Your task to perform on an android device: delete location history Image 0: 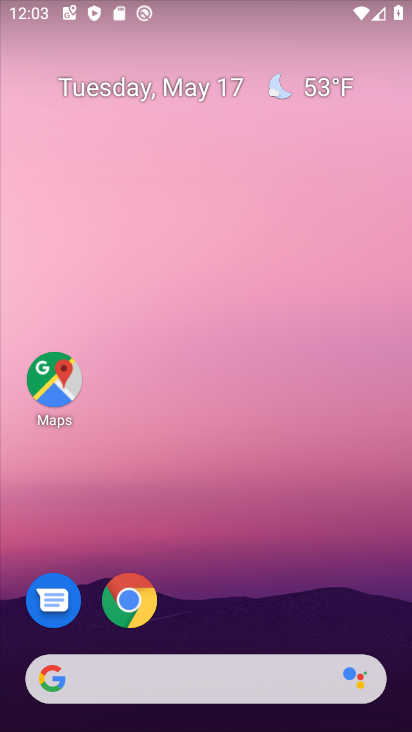
Step 0: click (50, 377)
Your task to perform on an android device: delete location history Image 1: 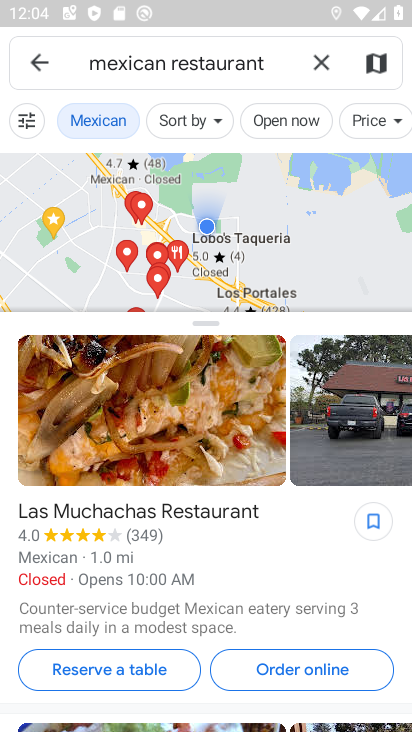
Step 1: click (45, 64)
Your task to perform on an android device: delete location history Image 2: 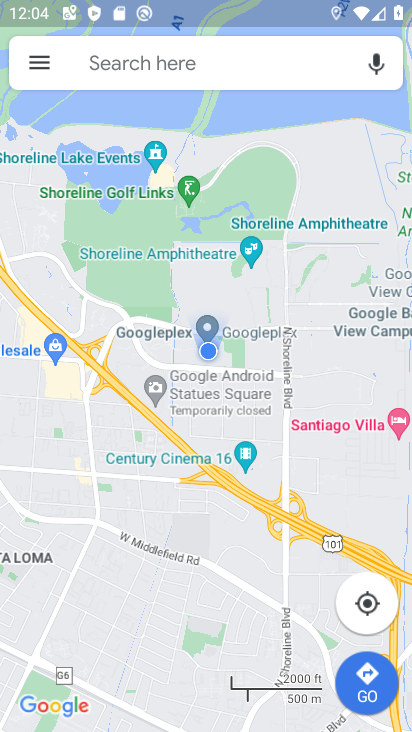
Step 2: click (45, 64)
Your task to perform on an android device: delete location history Image 3: 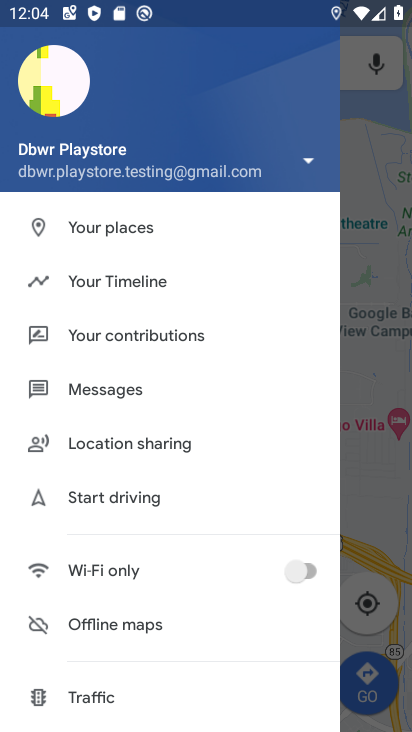
Step 3: click (143, 272)
Your task to perform on an android device: delete location history Image 4: 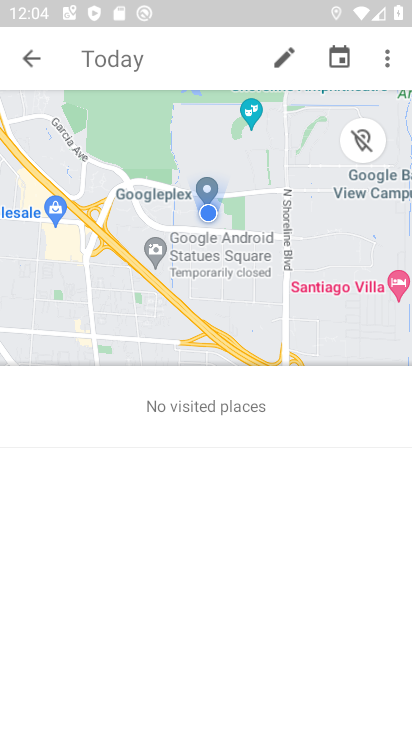
Step 4: click (387, 55)
Your task to perform on an android device: delete location history Image 5: 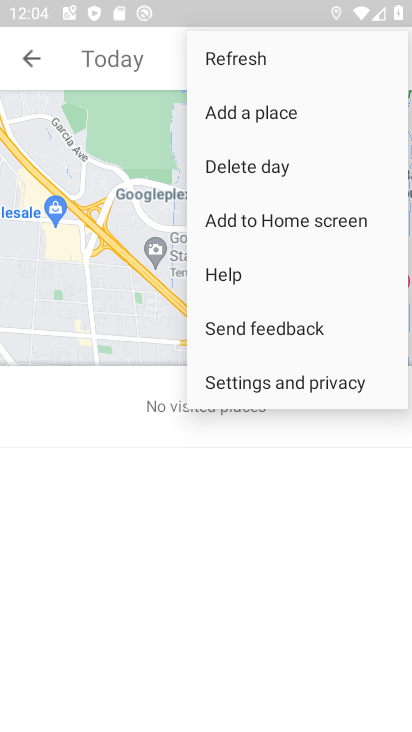
Step 5: click (310, 385)
Your task to perform on an android device: delete location history Image 6: 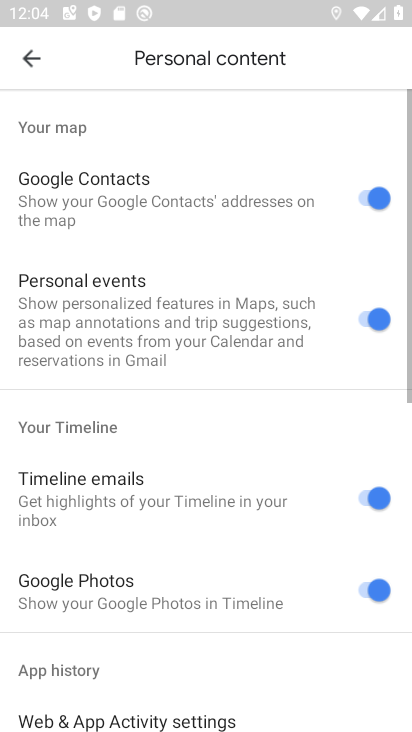
Step 6: drag from (246, 654) to (224, 130)
Your task to perform on an android device: delete location history Image 7: 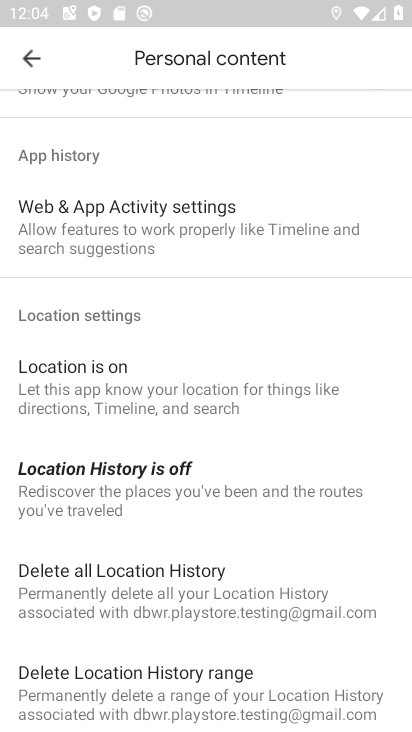
Step 7: click (260, 591)
Your task to perform on an android device: delete location history Image 8: 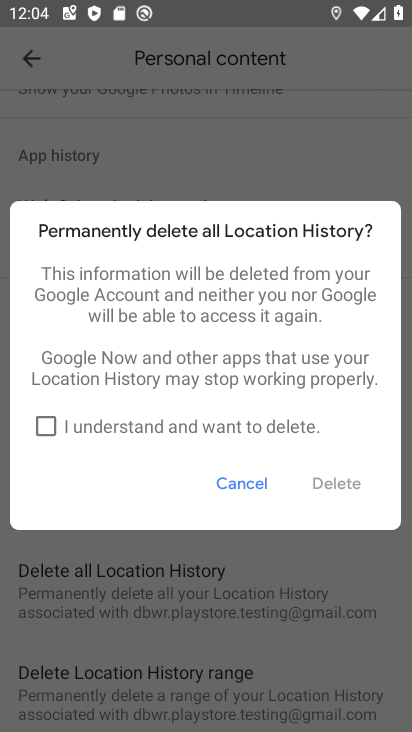
Step 8: click (210, 418)
Your task to perform on an android device: delete location history Image 9: 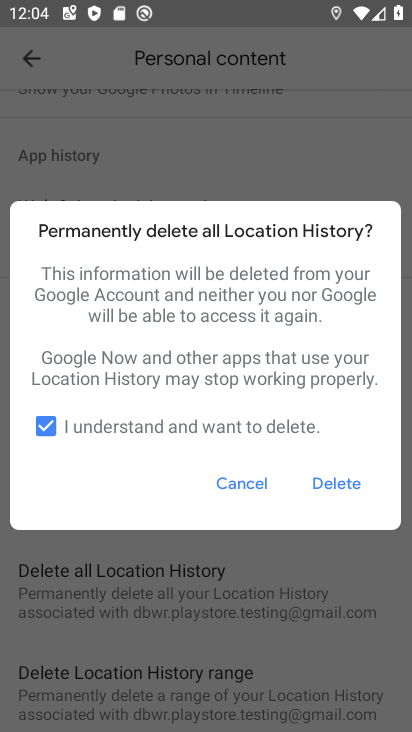
Step 9: click (335, 489)
Your task to perform on an android device: delete location history Image 10: 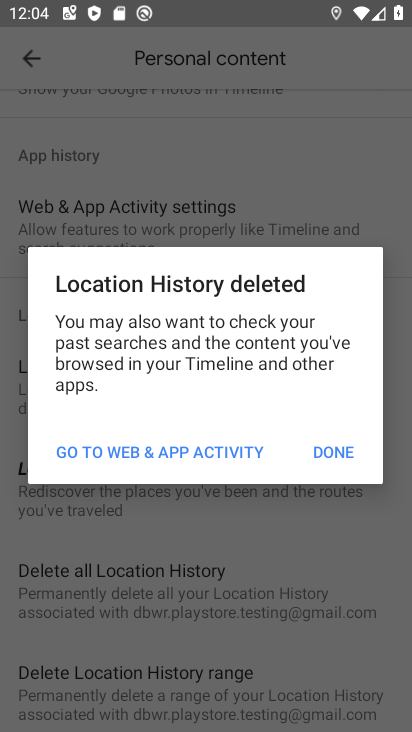
Step 10: click (340, 453)
Your task to perform on an android device: delete location history Image 11: 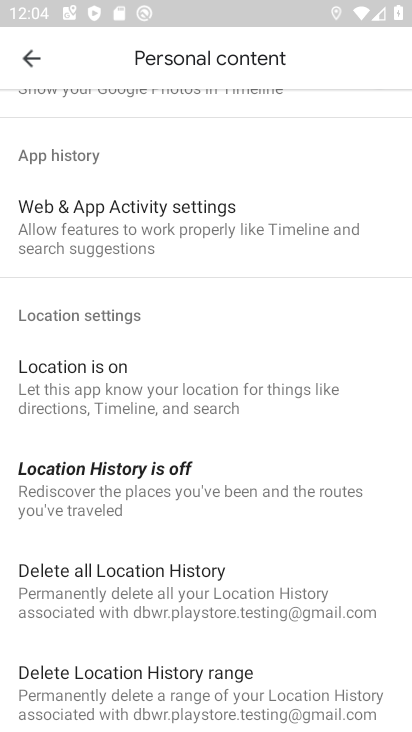
Step 11: task complete